Your task to perform on an android device: all mails in gmail Image 0: 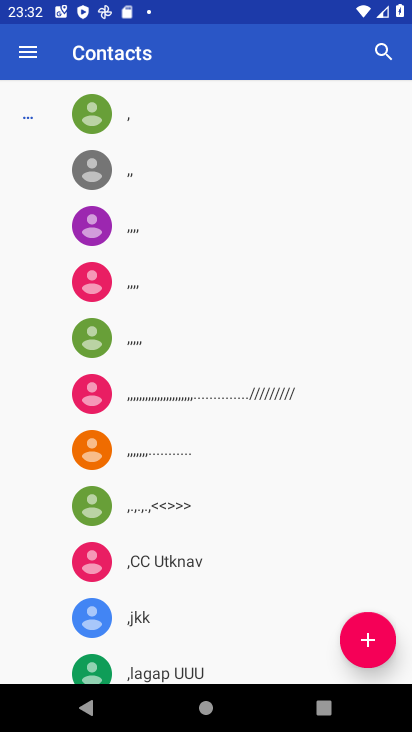
Step 0: press home button
Your task to perform on an android device: all mails in gmail Image 1: 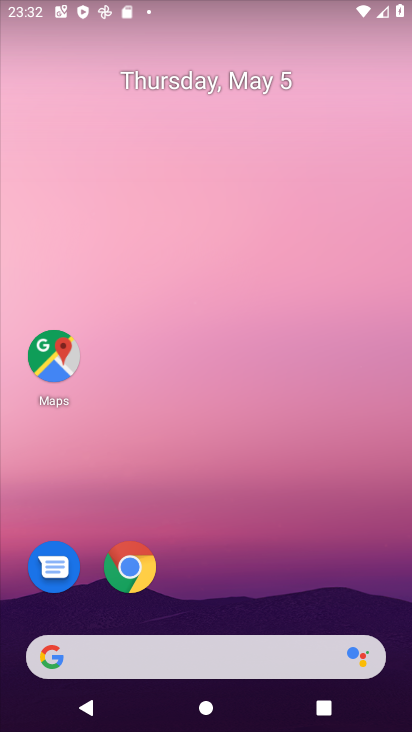
Step 1: drag from (230, 526) to (230, 143)
Your task to perform on an android device: all mails in gmail Image 2: 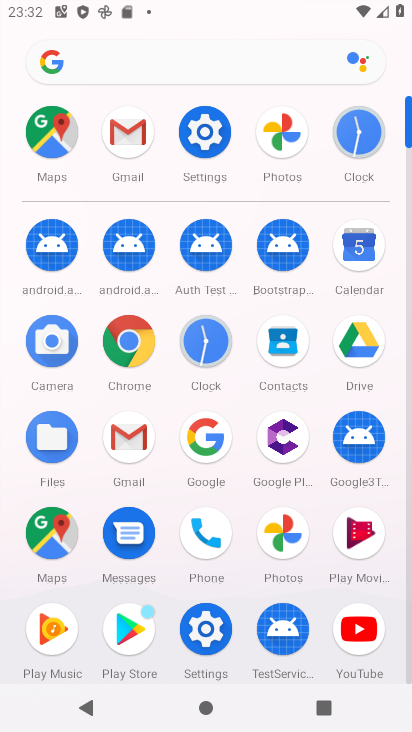
Step 2: click (113, 430)
Your task to perform on an android device: all mails in gmail Image 3: 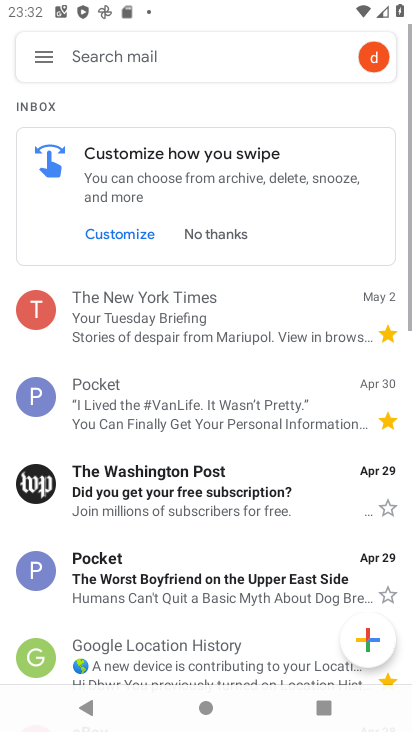
Step 3: click (57, 50)
Your task to perform on an android device: all mails in gmail Image 4: 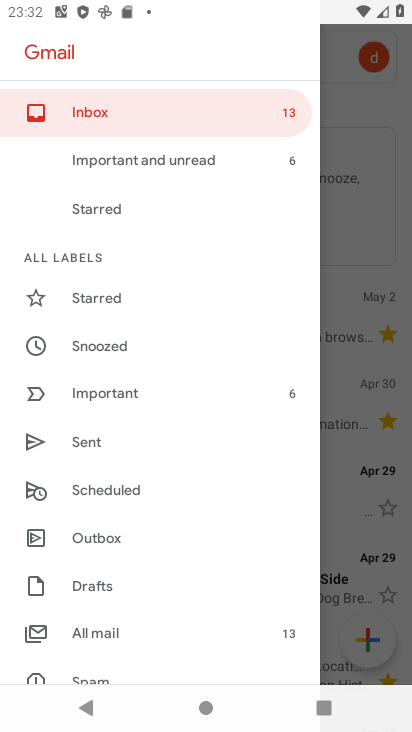
Step 4: click (125, 636)
Your task to perform on an android device: all mails in gmail Image 5: 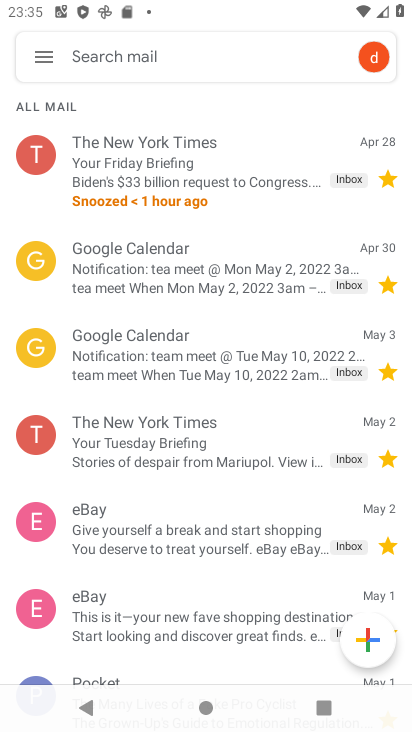
Step 5: task complete